Your task to perform on an android device: Go to Amazon Image 0: 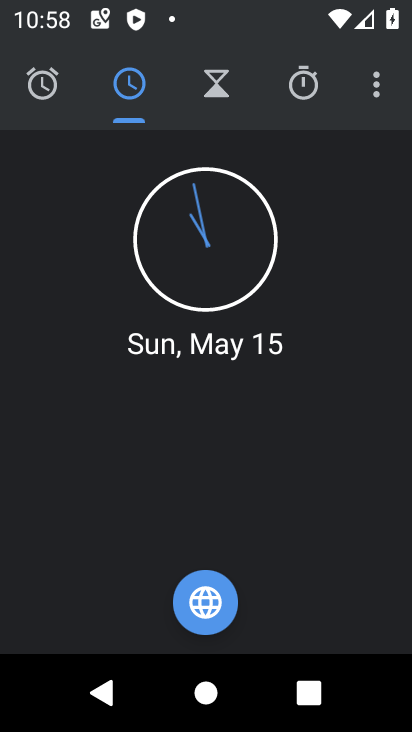
Step 0: press home button
Your task to perform on an android device: Go to Amazon Image 1: 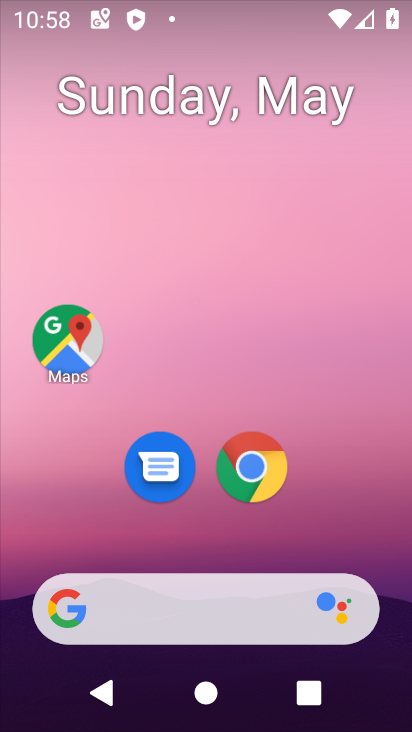
Step 1: click (263, 462)
Your task to perform on an android device: Go to Amazon Image 2: 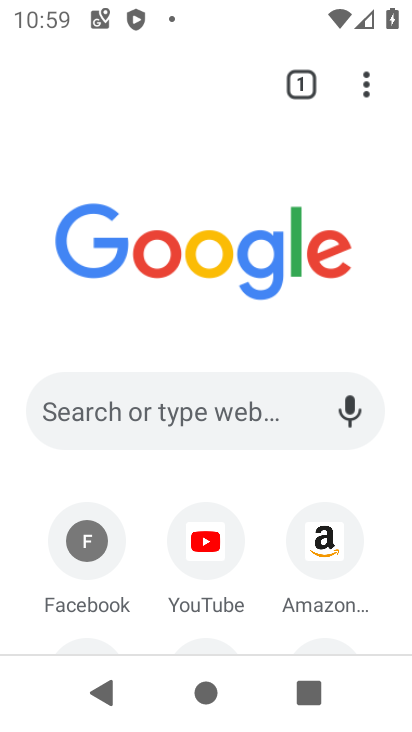
Step 2: click (326, 542)
Your task to perform on an android device: Go to Amazon Image 3: 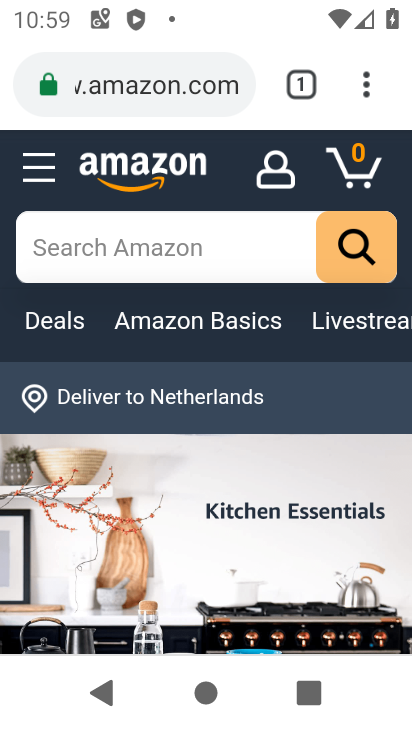
Step 3: task complete